Your task to perform on an android device: Search for sushi restaurants on Maps Image 0: 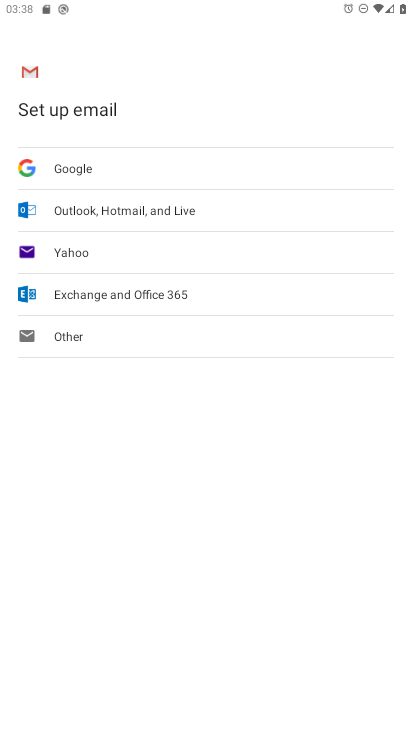
Step 0: press home button
Your task to perform on an android device: Search for sushi restaurants on Maps Image 1: 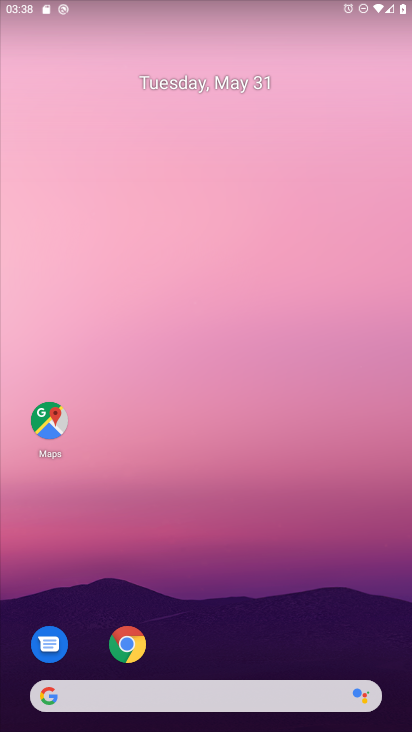
Step 1: click (50, 421)
Your task to perform on an android device: Search for sushi restaurants on Maps Image 2: 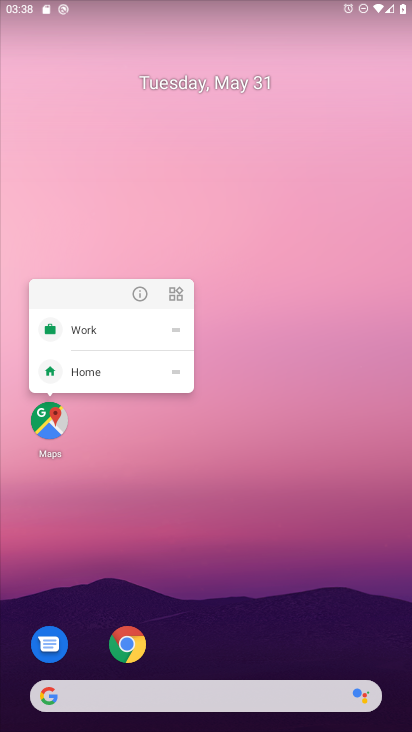
Step 2: click (48, 418)
Your task to perform on an android device: Search for sushi restaurants on Maps Image 3: 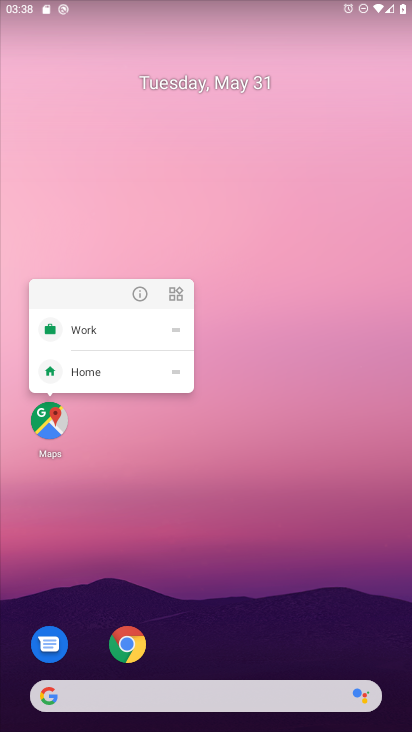
Step 3: click (47, 419)
Your task to perform on an android device: Search for sushi restaurants on Maps Image 4: 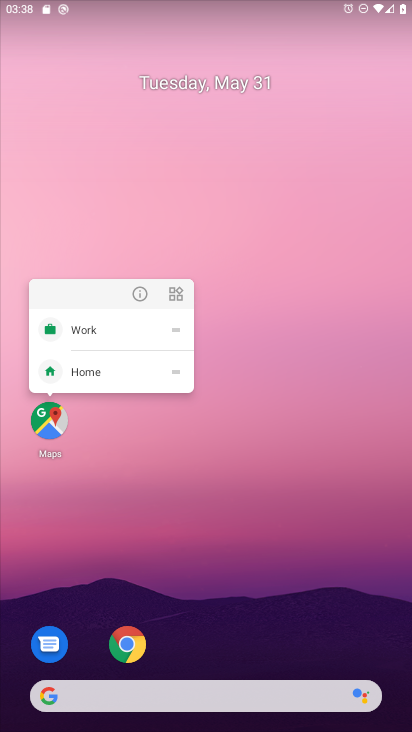
Step 4: click (189, 486)
Your task to perform on an android device: Search for sushi restaurants on Maps Image 5: 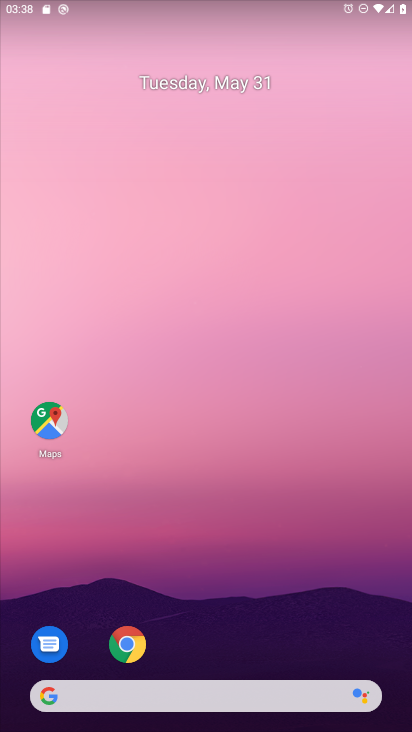
Step 5: drag from (383, 639) to (339, 117)
Your task to perform on an android device: Search for sushi restaurants on Maps Image 6: 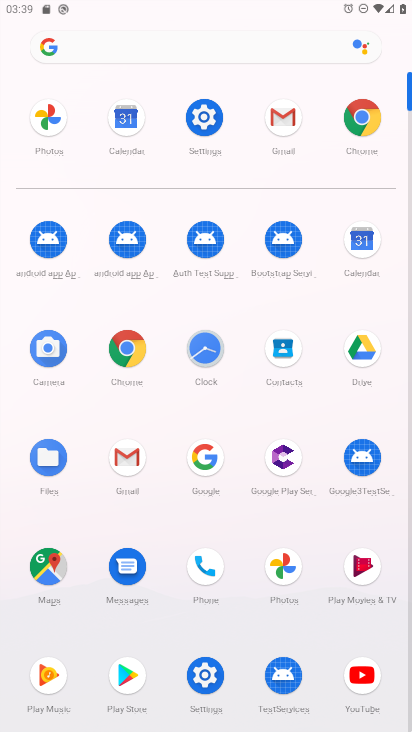
Step 6: click (40, 567)
Your task to perform on an android device: Search for sushi restaurants on Maps Image 7: 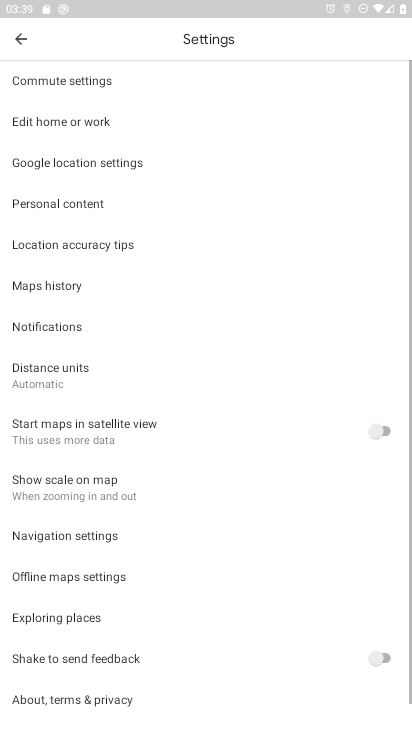
Step 7: click (18, 29)
Your task to perform on an android device: Search for sushi restaurants on Maps Image 8: 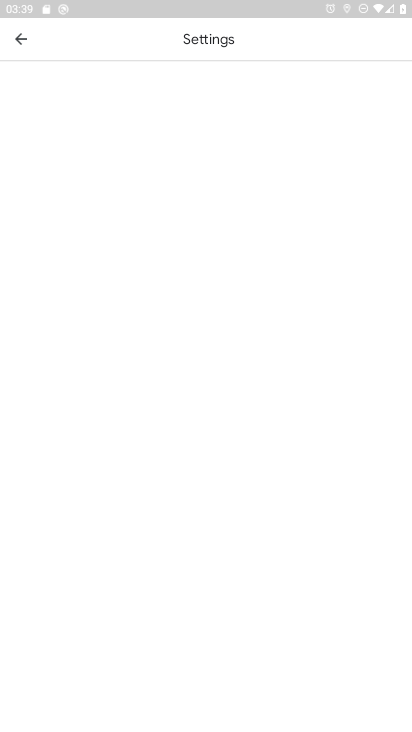
Step 8: click (22, 40)
Your task to perform on an android device: Search for sushi restaurants on Maps Image 9: 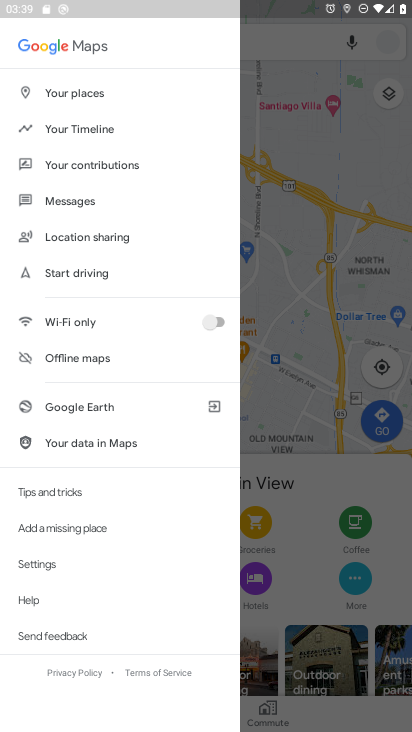
Step 9: click (107, 35)
Your task to perform on an android device: Search for sushi restaurants on Maps Image 10: 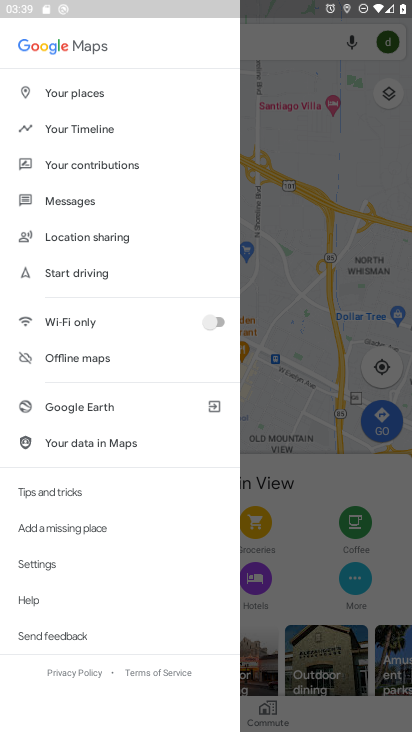
Step 10: click (289, 71)
Your task to perform on an android device: Search for sushi restaurants on Maps Image 11: 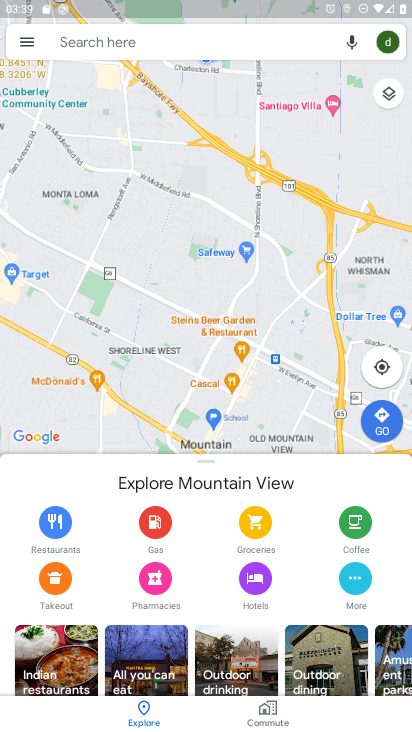
Step 11: click (261, 50)
Your task to perform on an android device: Search for sushi restaurants on Maps Image 12: 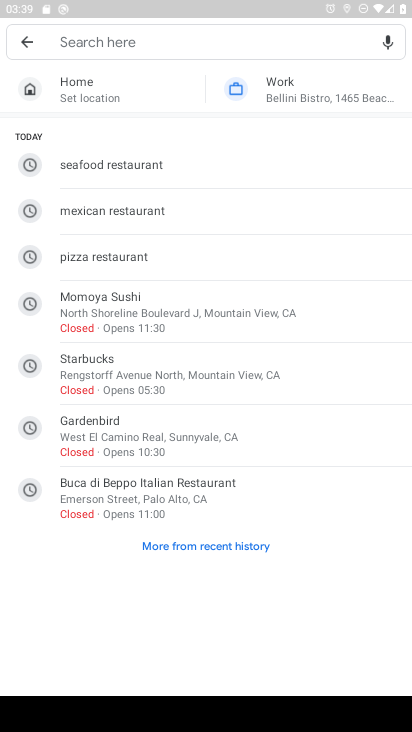
Step 12: type "sushi restaurants"
Your task to perform on an android device: Search for sushi restaurants on Maps Image 13: 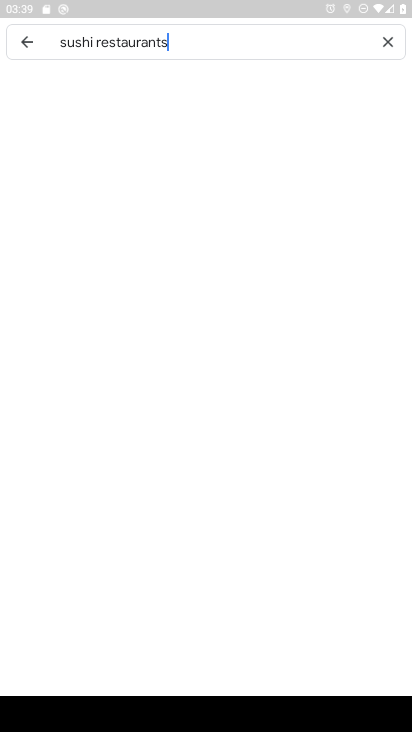
Step 13: type ""
Your task to perform on an android device: Search for sushi restaurants on Maps Image 14: 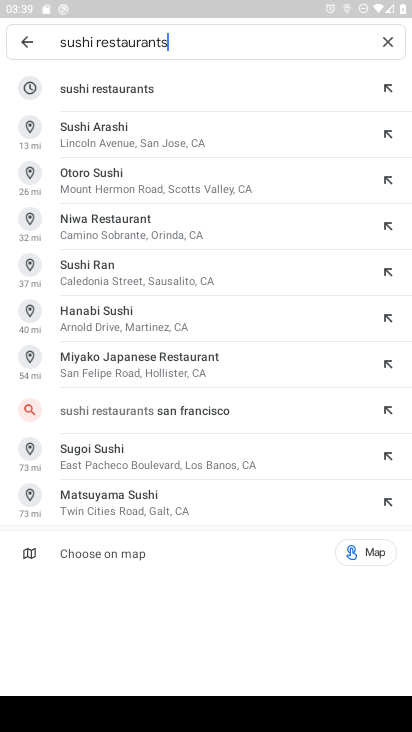
Step 14: click (141, 81)
Your task to perform on an android device: Search for sushi restaurants on Maps Image 15: 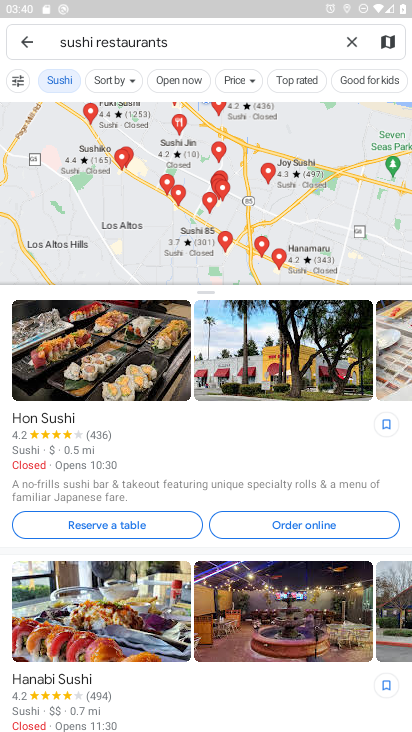
Step 15: task complete